Your task to perform on an android device: clear history in the chrome app Image 0: 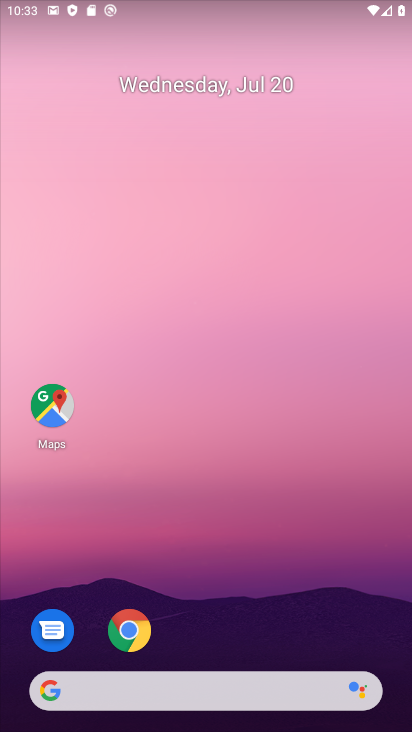
Step 0: click (130, 628)
Your task to perform on an android device: clear history in the chrome app Image 1: 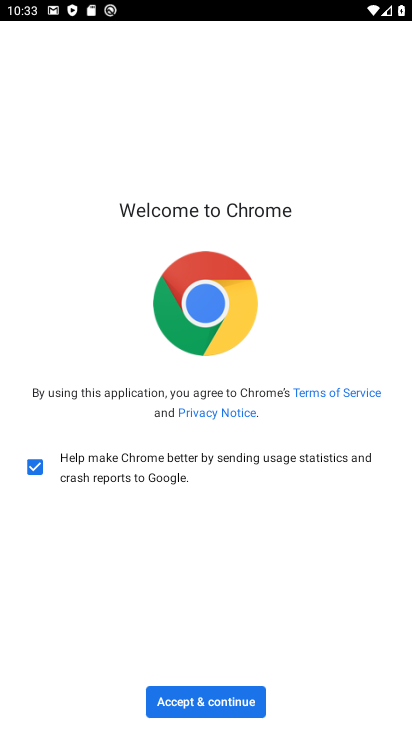
Step 1: click (185, 713)
Your task to perform on an android device: clear history in the chrome app Image 2: 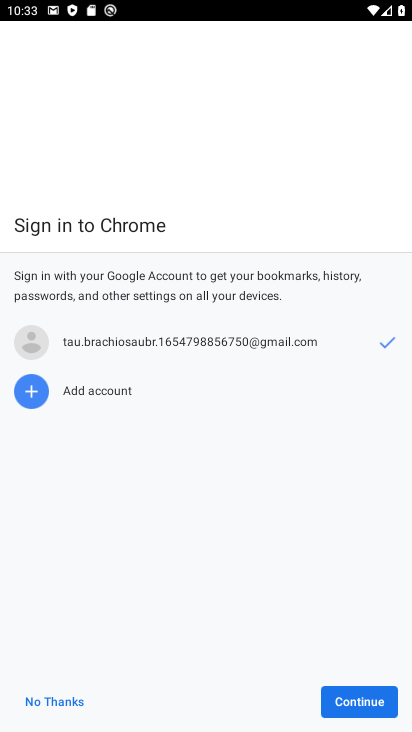
Step 2: click (361, 696)
Your task to perform on an android device: clear history in the chrome app Image 3: 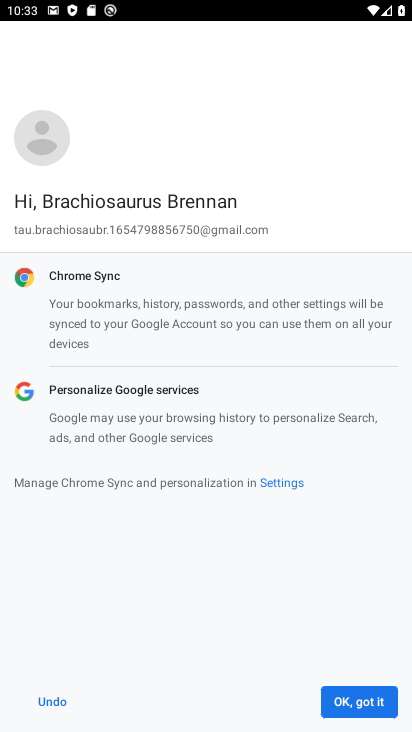
Step 3: click (353, 703)
Your task to perform on an android device: clear history in the chrome app Image 4: 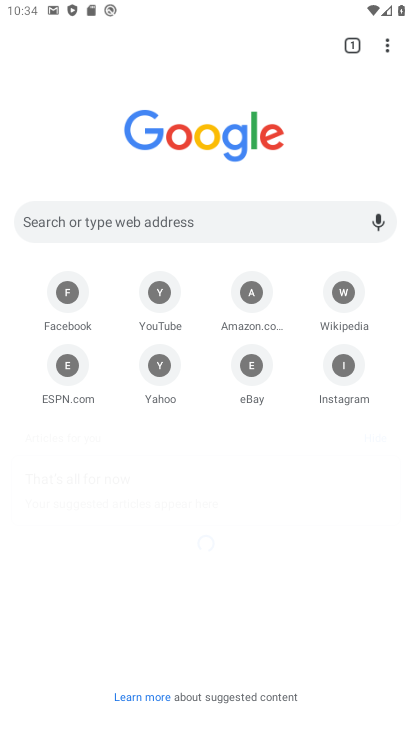
Step 4: click (384, 41)
Your task to perform on an android device: clear history in the chrome app Image 5: 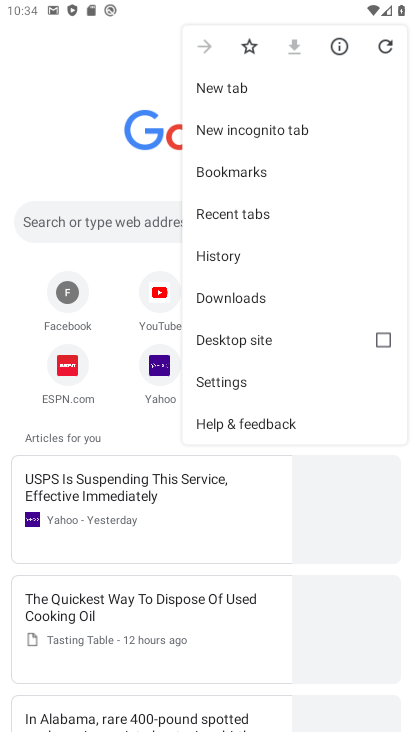
Step 5: click (233, 388)
Your task to perform on an android device: clear history in the chrome app Image 6: 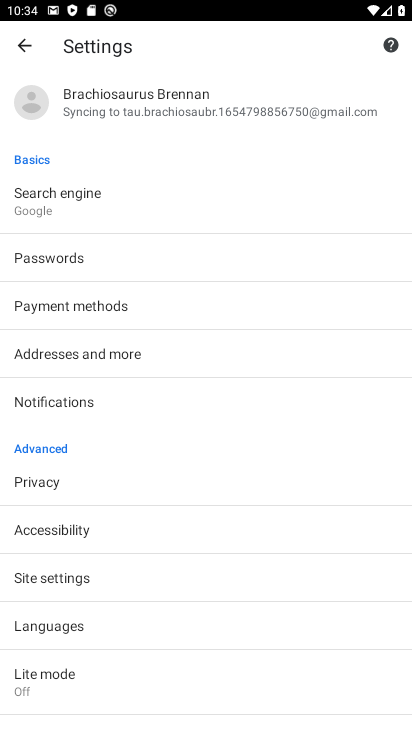
Step 6: drag from (91, 608) to (103, 227)
Your task to perform on an android device: clear history in the chrome app Image 7: 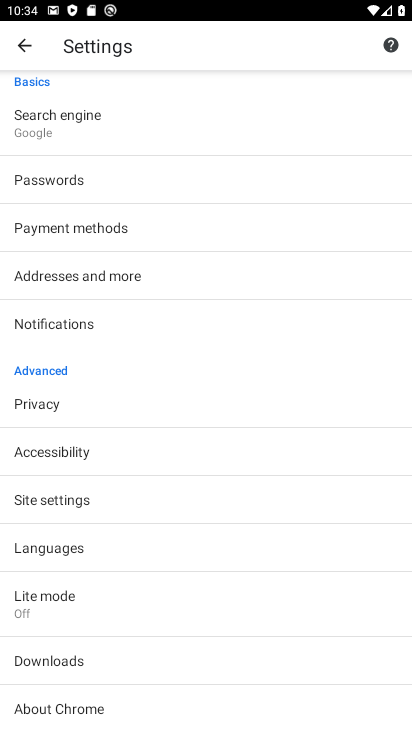
Step 7: click (50, 412)
Your task to perform on an android device: clear history in the chrome app Image 8: 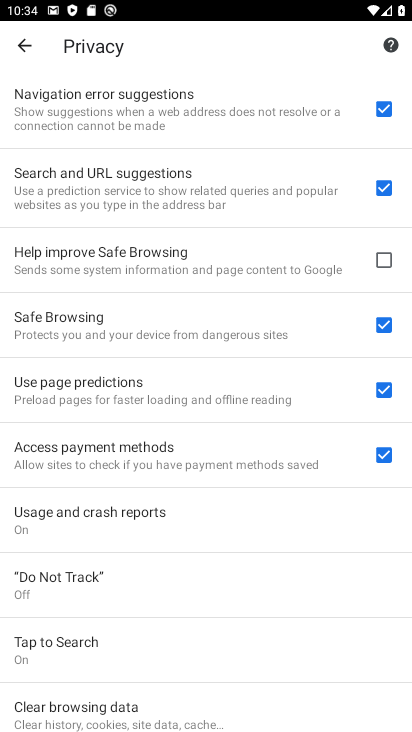
Step 8: click (93, 722)
Your task to perform on an android device: clear history in the chrome app Image 9: 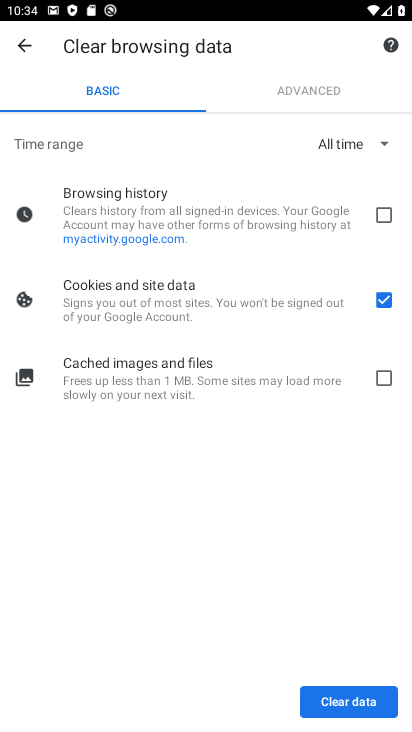
Step 9: click (385, 217)
Your task to perform on an android device: clear history in the chrome app Image 10: 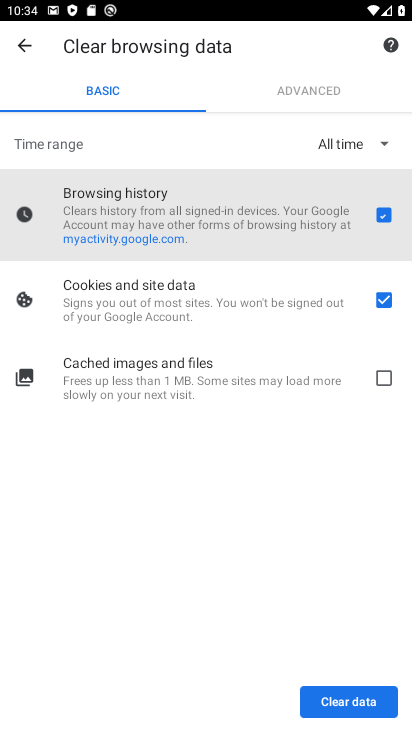
Step 10: click (378, 301)
Your task to perform on an android device: clear history in the chrome app Image 11: 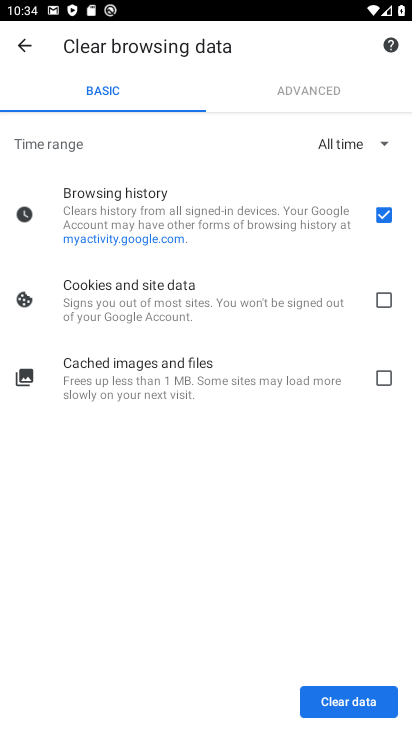
Step 11: click (338, 702)
Your task to perform on an android device: clear history in the chrome app Image 12: 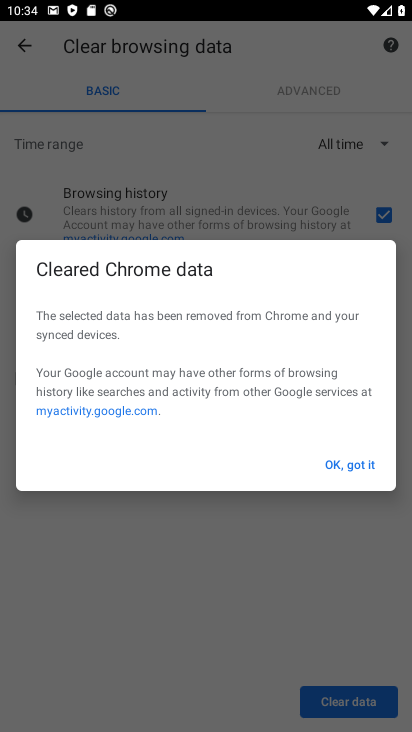
Step 12: click (338, 472)
Your task to perform on an android device: clear history in the chrome app Image 13: 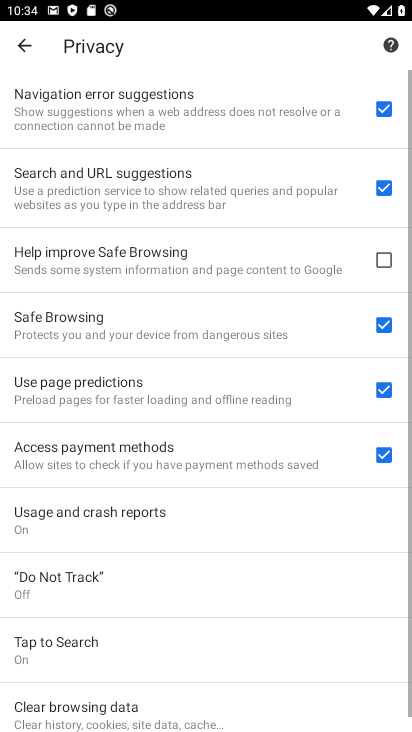
Step 13: task complete